Your task to perform on an android device: Check the news Image 0: 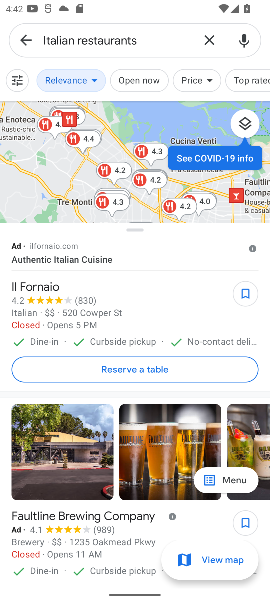
Step 0: task complete